Your task to perform on an android device: Search for seafood restaurants on Google Maps Image 0: 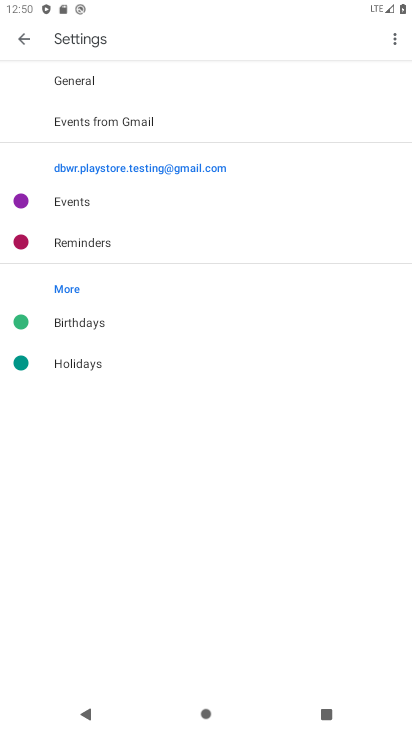
Step 0: press home button
Your task to perform on an android device: Search for seafood restaurants on Google Maps Image 1: 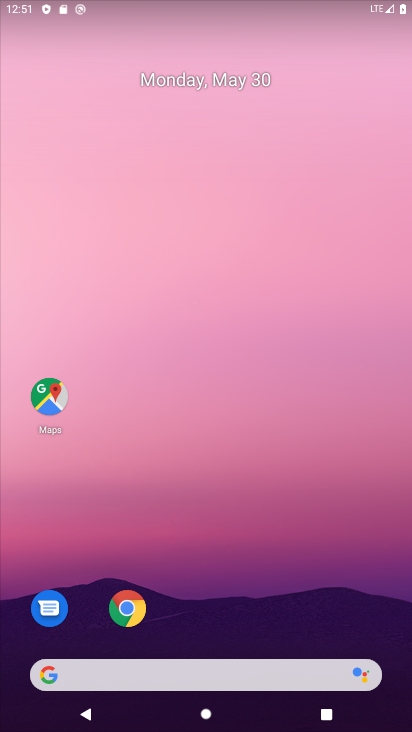
Step 1: click (63, 415)
Your task to perform on an android device: Search for seafood restaurants on Google Maps Image 2: 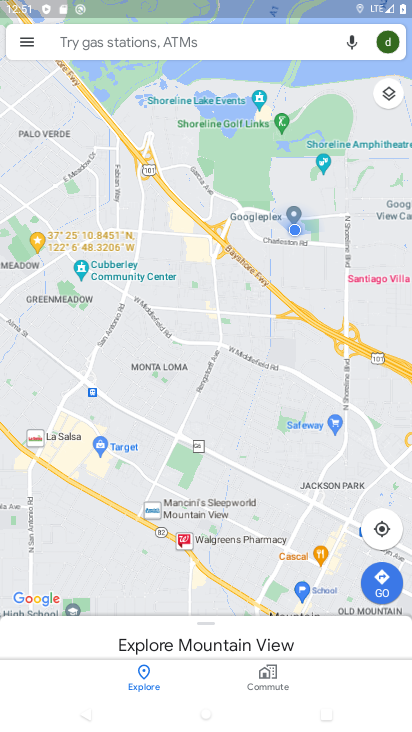
Step 2: click (126, 26)
Your task to perform on an android device: Search for seafood restaurants on Google Maps Image 3: 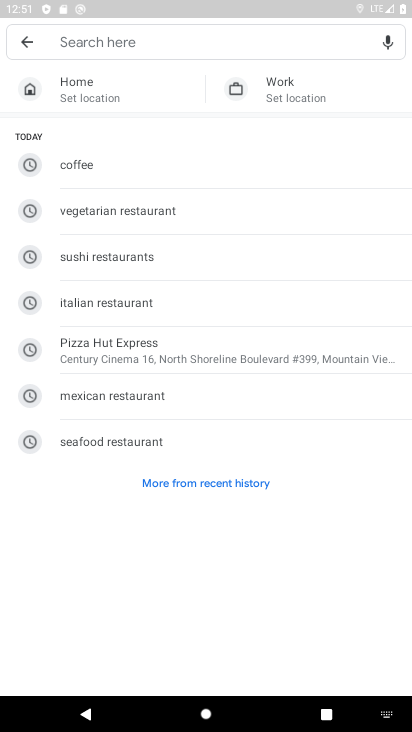
Step 3: type "seafood restaurants"
Your task to perform on an android device: Search for seafood restaurants on Google Maps Image 4: 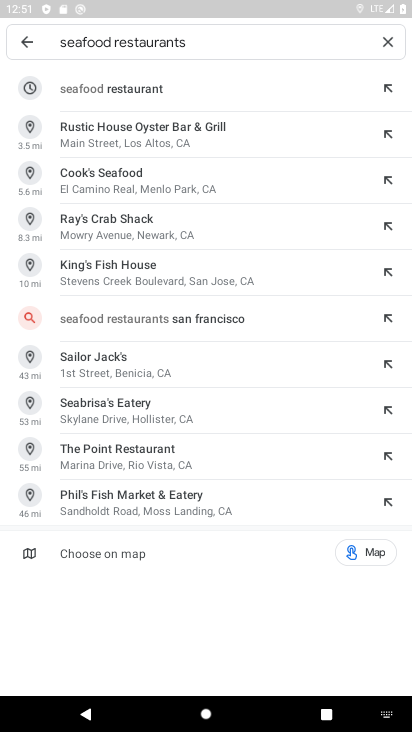
Step 4: click (143, 92)
Your task to perform on an android device: Search for seafood restaurants on Google Maps Image 5: 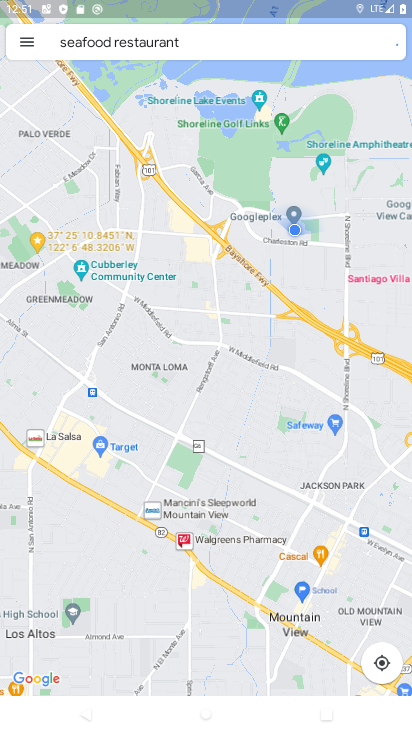
Step 5: task complete